Your task to perform on an android device: Open eBay Image 0: 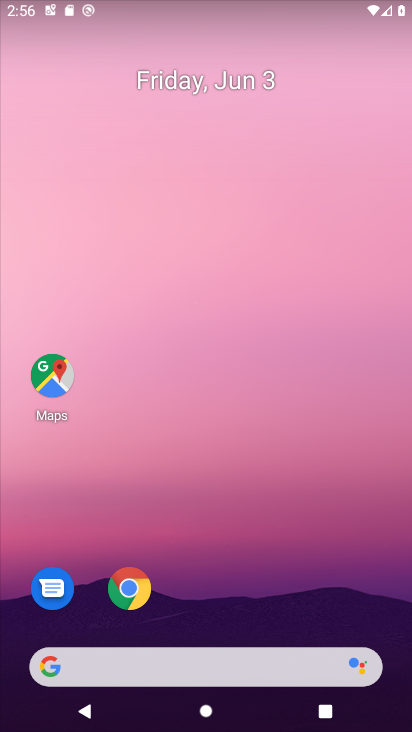
Step 0: drag from (211, 549) to (263, 89)
Your task to perform on an android device: Open eBay Image 1: 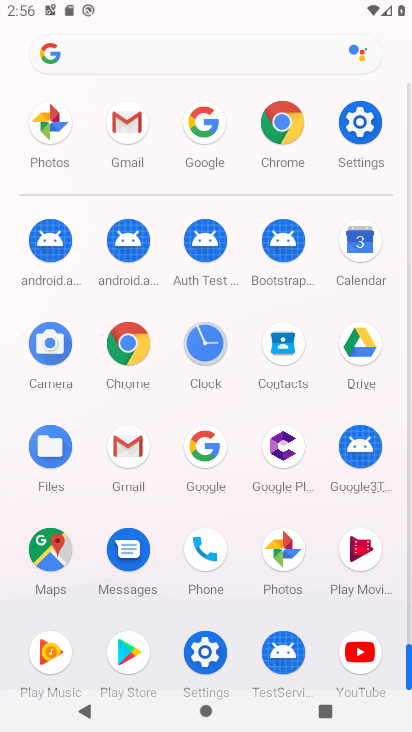
Step 1: click (285, 130)
Your task to perform on an android device: Open eBay Image 2: 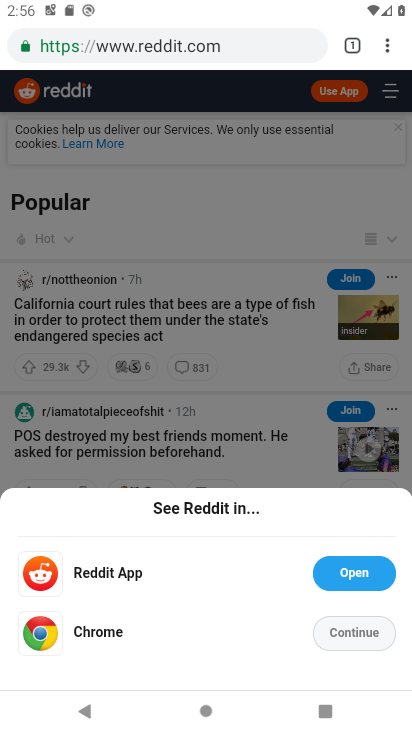
Step 2: click (239, 44)
Your task to perform on an android device: Open eBay Image 3: 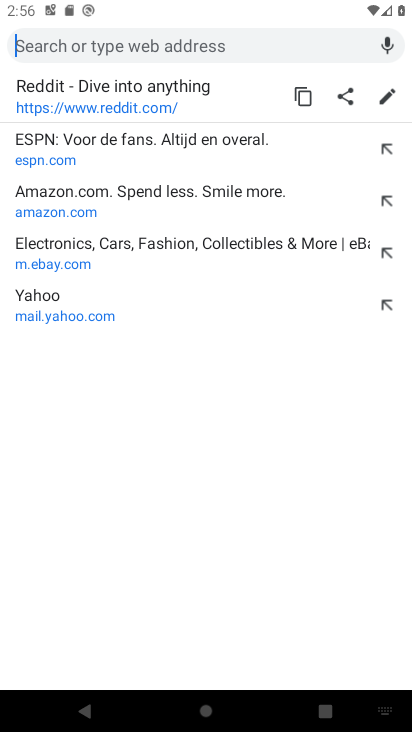
Step 3: click (205, 252)
Your task to perform on an android device: Open eBay Image 4: 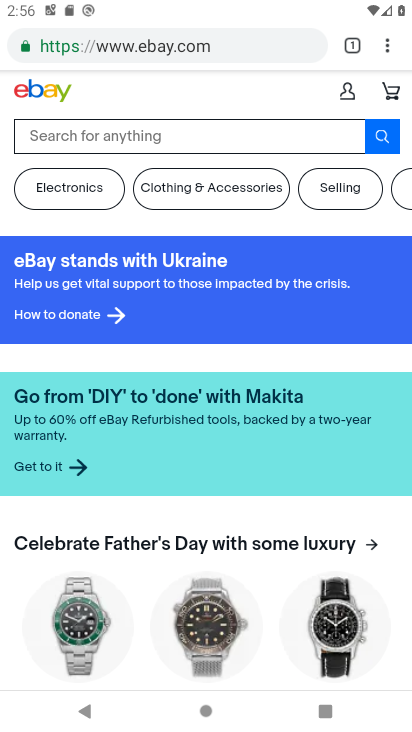
Step 4: task complete